Your task to perform on an android device: stop showing notifications on the lock screen Image 0: 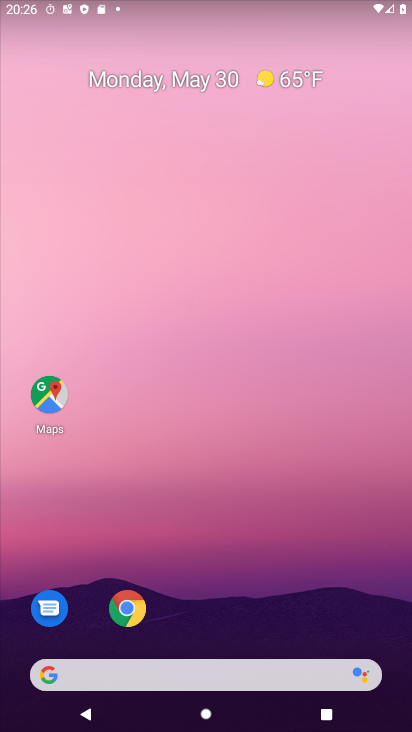
Step 0: drag from (196, 606) to (166, 181)
Your task to perform on an android device: stop showing notifications on the lock screen Image 1: 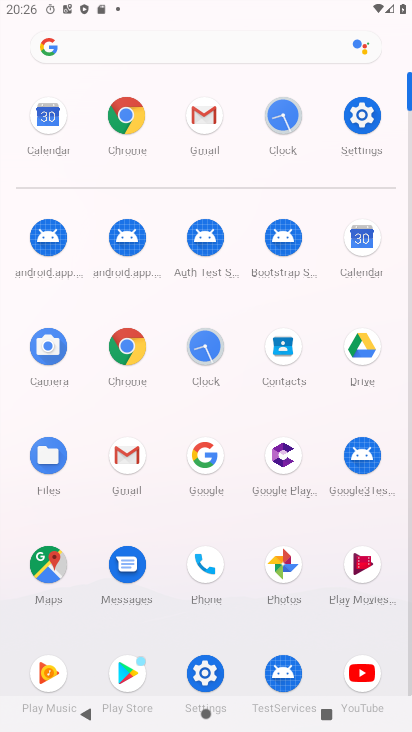
Step 1: click (355, 128)
Your task to perform on an android device: stop showing notifications on the lock screen Image 2: 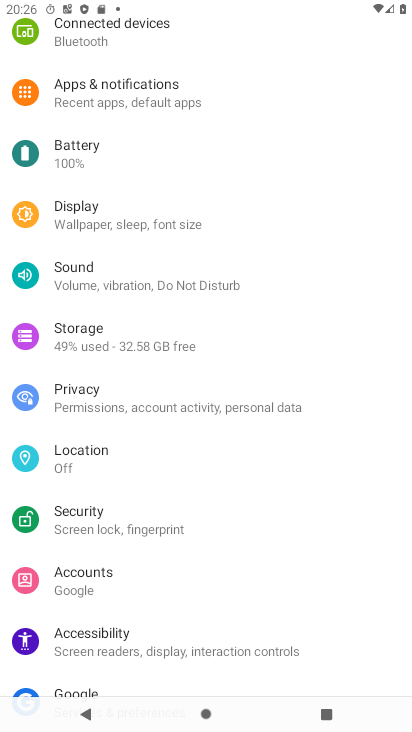
Step 2: click (207, 100)
Your task to perform on an android device: stop showing notifications on the lock screen Image 3: 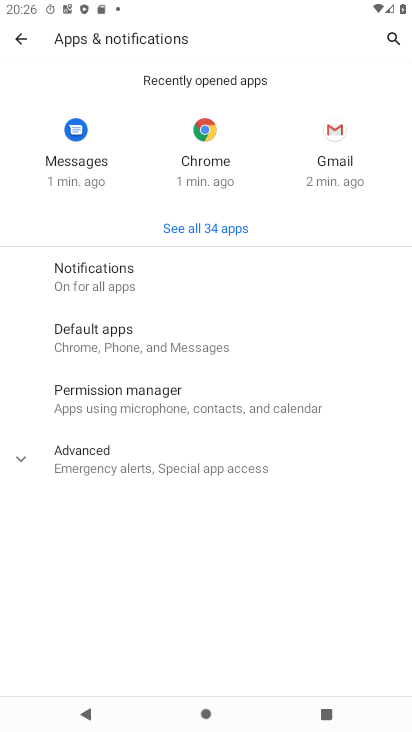
Step 3: click (165, 271)
Your task to perform on an android device: stop showing notifications on the lock screen Image 4: 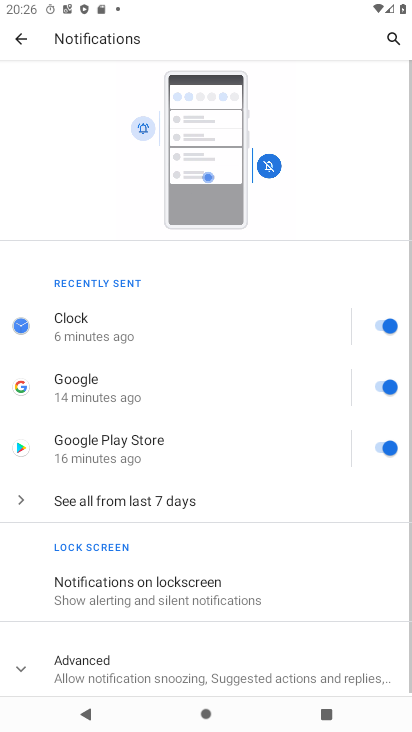
Step 4: drag from (220, 623) to (219, 430)
Your task to perform on an android device: stop showing notifications on the lock screen Image 5: 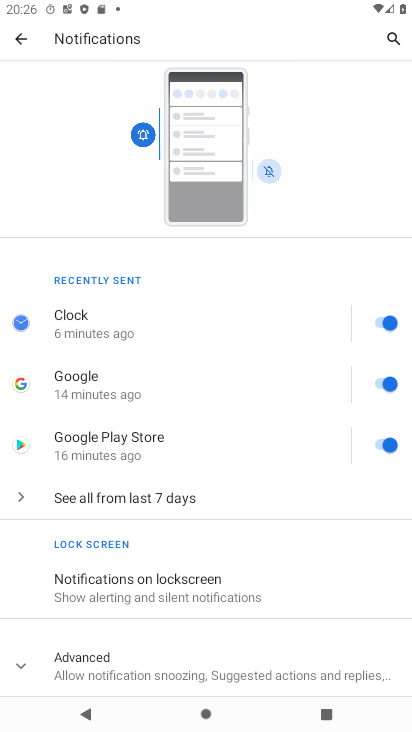
Step 5: click (166, 550)
Your task to perform on an android device: stop showing notifications on the lock screen Image 6: 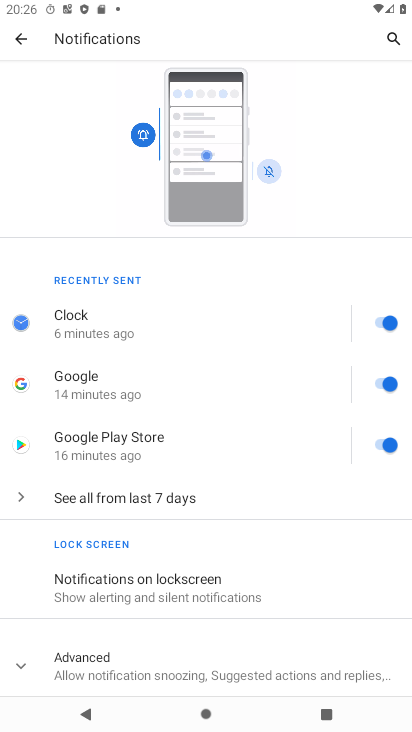
Step 6: click (167, 587)
Your task to perform on an android device: stop showing notifications on the lock screen Image 7: 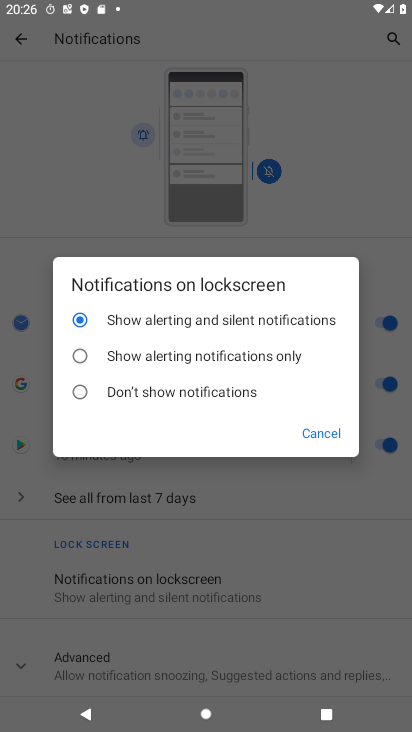
Step 7: click (126, 398)
Your task to perform on an android device: stop showing notifications on the lock screen Image 8: 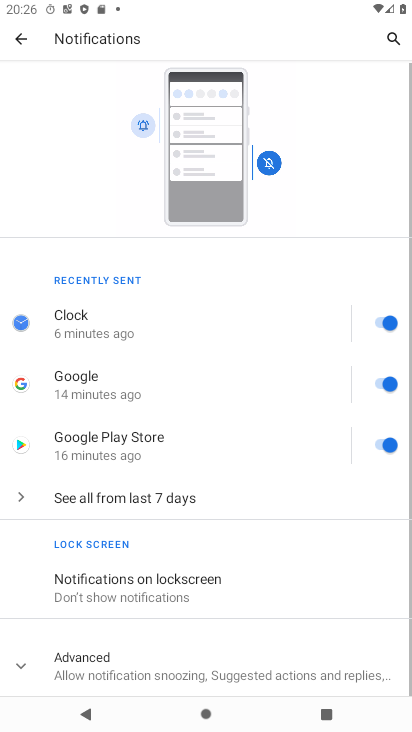
Step 8: task complete